Your task to perform on an android device: turn off data saver in the chrome app Image 0: 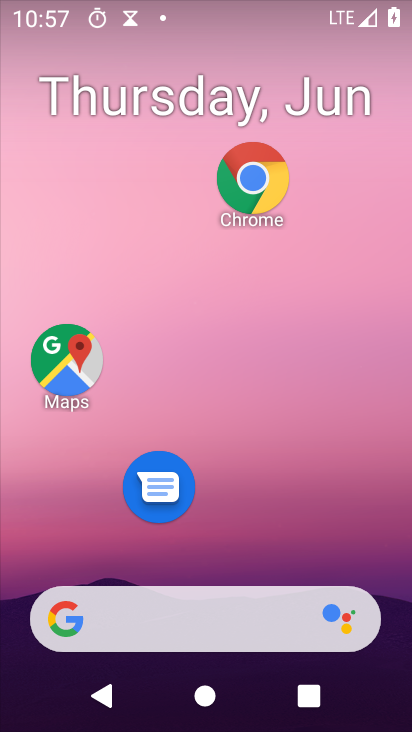
Step 0: click (259, 175)
Your task to perform on an android device: turn off data saver in the chrome app Image 1: 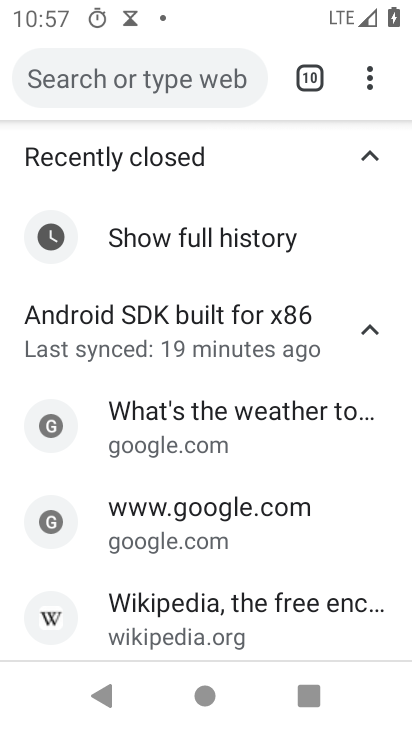
Step 1: click (367, 87)
Your task to perform on an android device: turn off data saver in the chrome app Image 2: 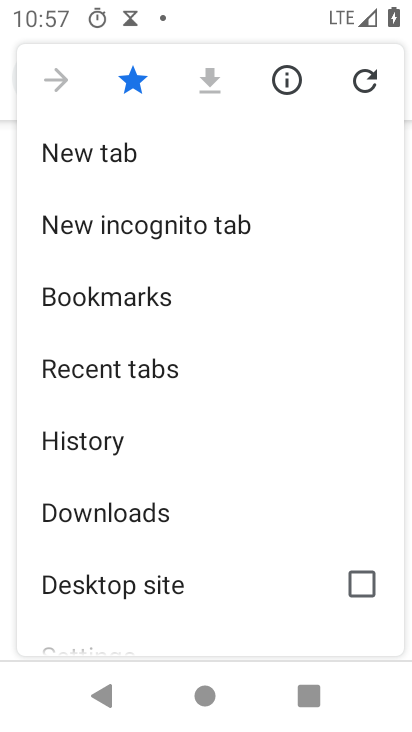
Step 2: drag from (140, 618) to (139, 221)
Your task to perform on an android device: turn off data saver in the chrome app Image 3: 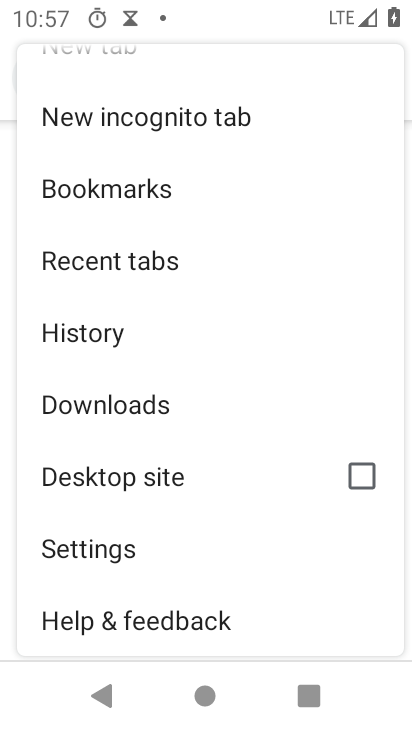
Step 3: click (93, 548)
Your task to perform on an android device: turn off data saver in the chrome app Image 4: 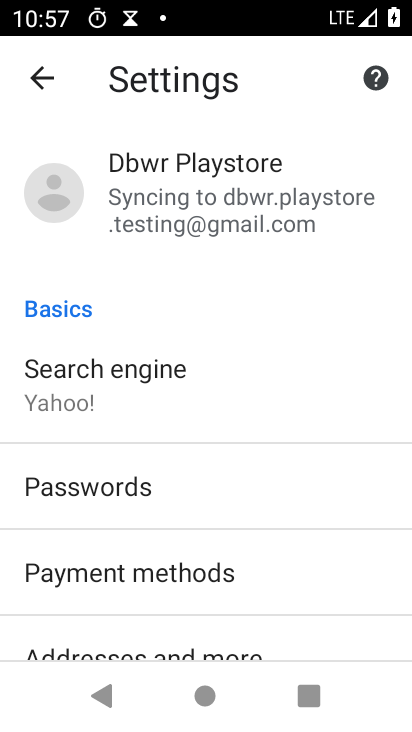
Step 4: drag from (127, 646) to (140, 311)
Your task to perform on an android device: turn off data saver in the chrome app Image 5: 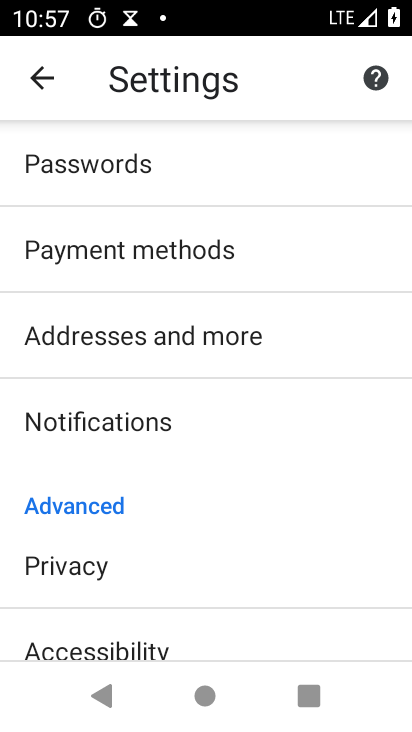
Step 5: drag from (150, 642) to (158, 296)
Your task to perform on an android device: turn off data saver in the chrome app Image 6: 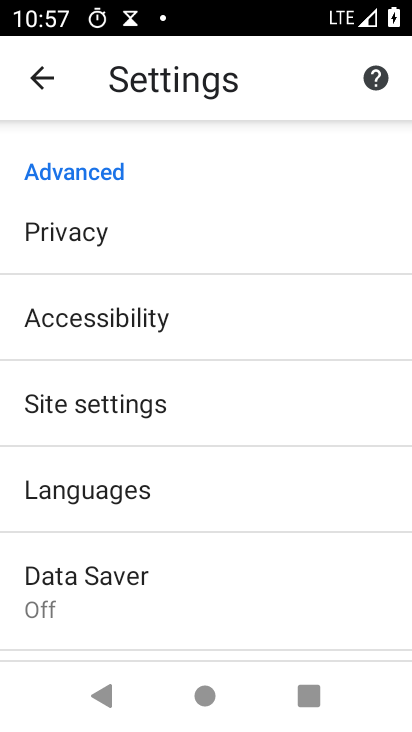
Step 6: click (80, 570)
Your task to perform on an android device: turn off data saver in the chrome app Image 7: 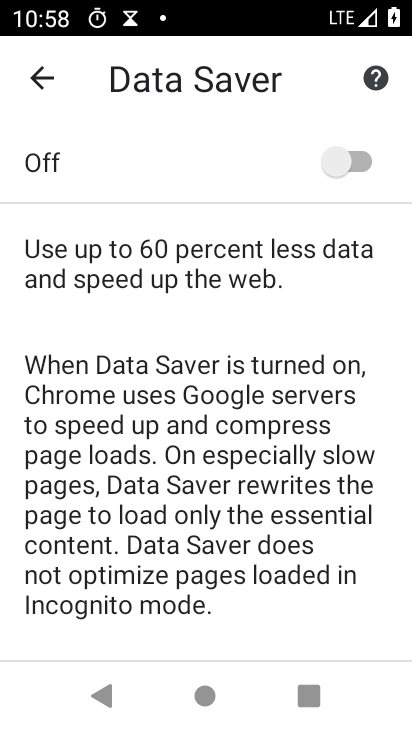
Step 7: task complete